Your task to perform on an android device: check battery use Image 0: 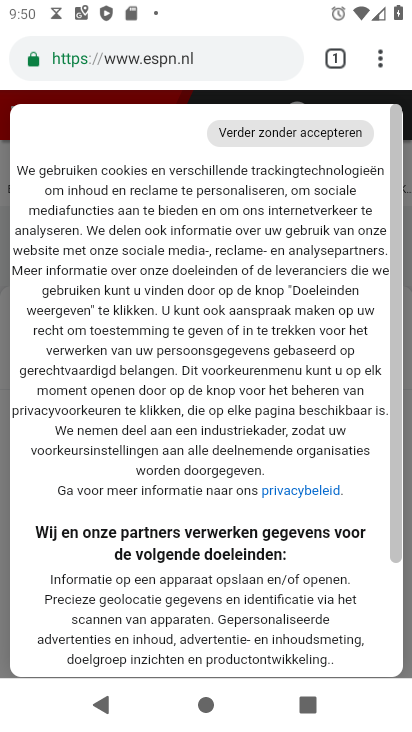
Step 0: press home button
Your task to perform on an android device: check battery use Image 1: 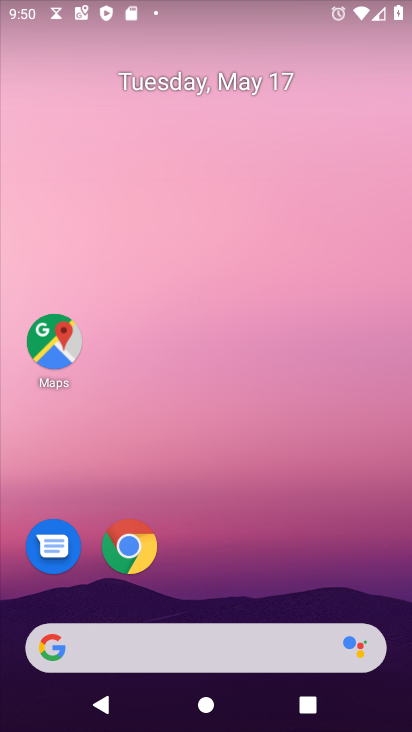
Step 1: drag from (238, 524) to (252, 33)
Your task to perform on an android device: check battery use Image 2: 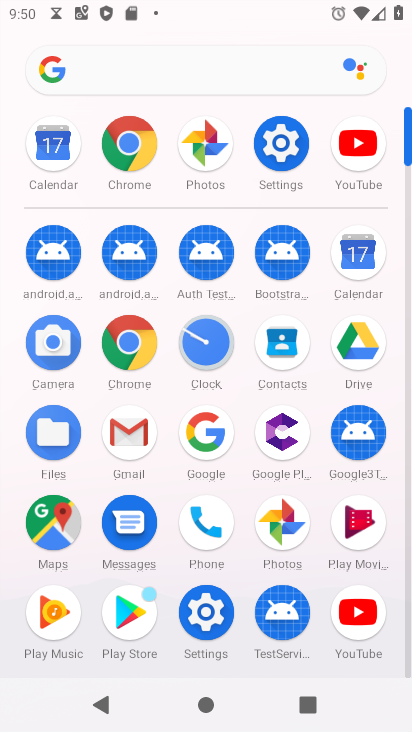
Step 2: click (275, 139)
Your task to perform on an android device: check battery use Image 3: 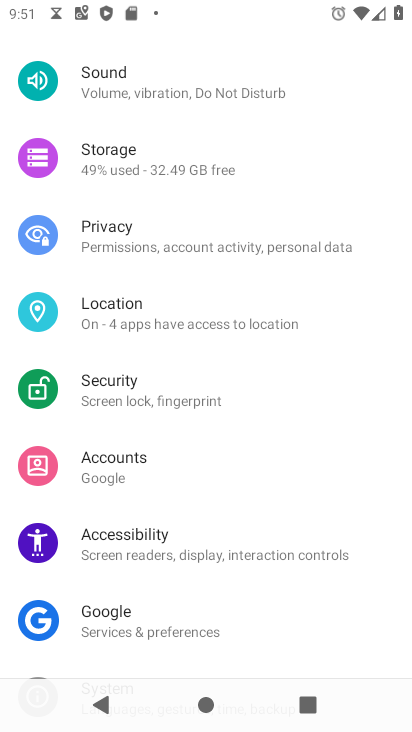
Step 3: drag from (156, 465) to (188, 308)
Your task to perform on an android device: check battery use Image 4: 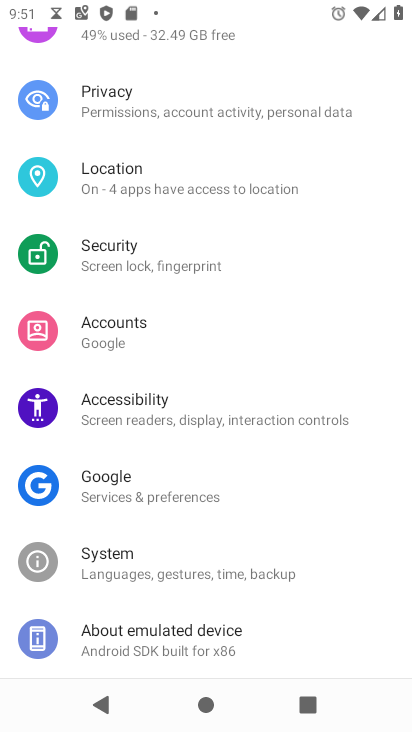
Step 4: drag from (213, 285) to (251, 612)
Your task to perform on an android device: check battery use Image 5: 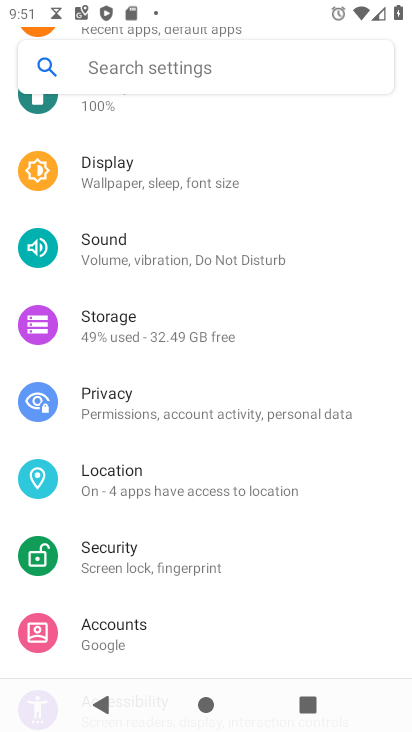
Step 5: drag from (308, 265) to (337, 433)
Your task to perform on an android device: check battery use Image 6: 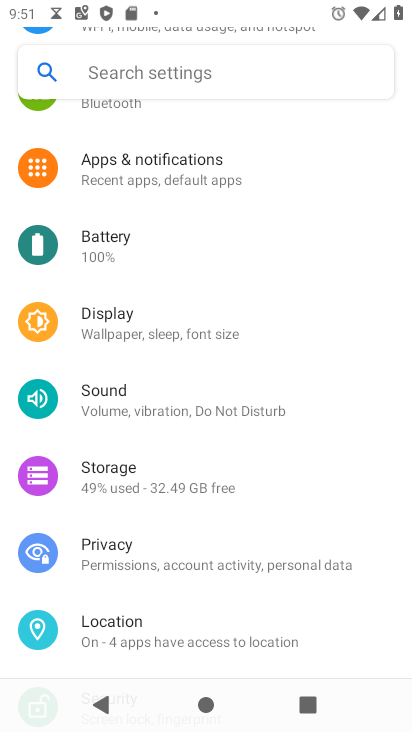
Step 6: click (97, 236)
Your task to perform on an android device: check battery use Image 7: 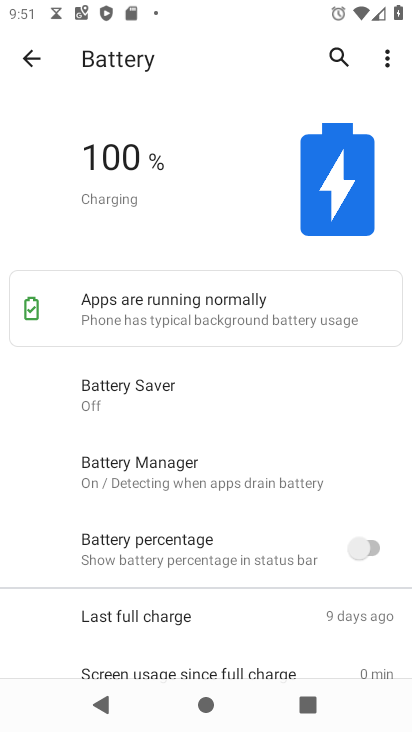
Step 7: task complete